Your task to perform on an android device: Open calendar and show me the second week of next month Image 0: 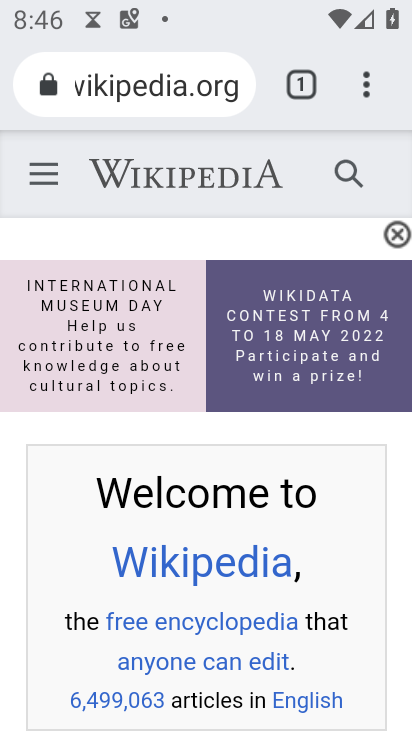
Step 0: press home button
Your task to perform on an android device: Open calendar and show me the second week of next month Image 1: 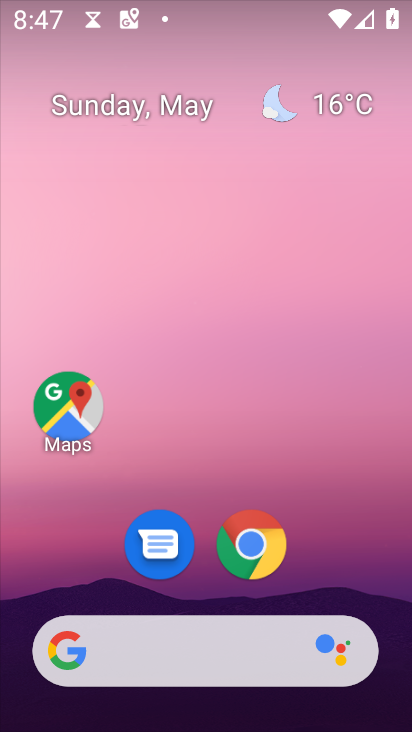
Step 1: drag from (302, 578) to (244, 338)
Your task to perform on an android device: Open calendar and show me the second week of next month Image 2: 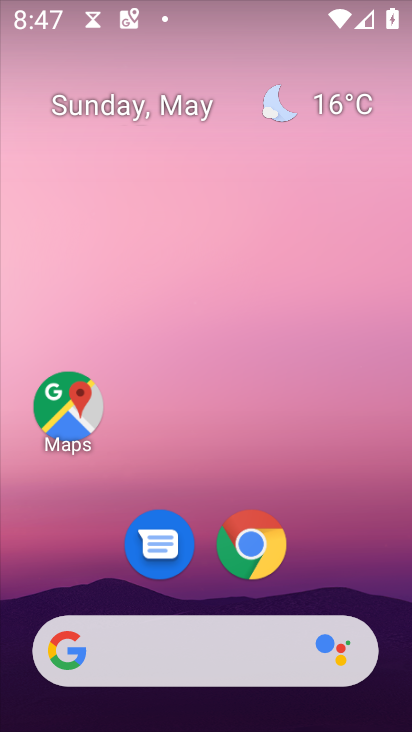
Step 2: drag from (222, 583) to (228, 213)
Your task to perform on an android device: Open calendar and show me the second week of next month Image 3: 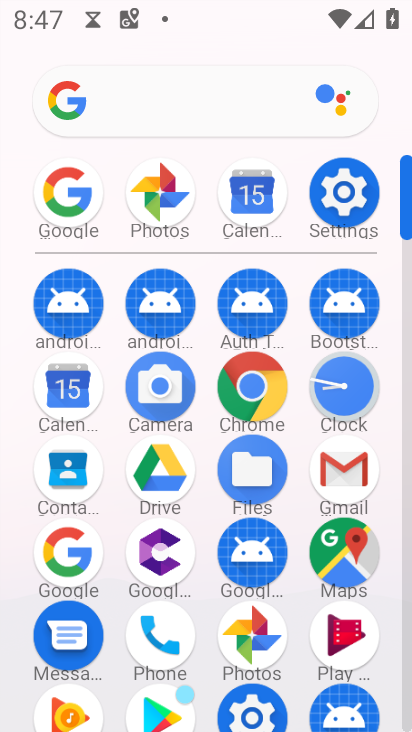
Step 3: click (207, 399)
Your task to perform on an android device: Open calendar and show me the second week of next month Image 4: 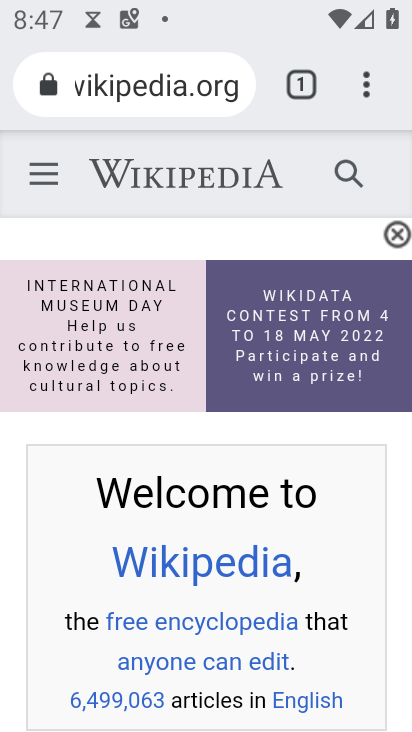
Step 4: press back button
Your task to perform on an android device: Open calendar and show me the second week of next month Image 5: 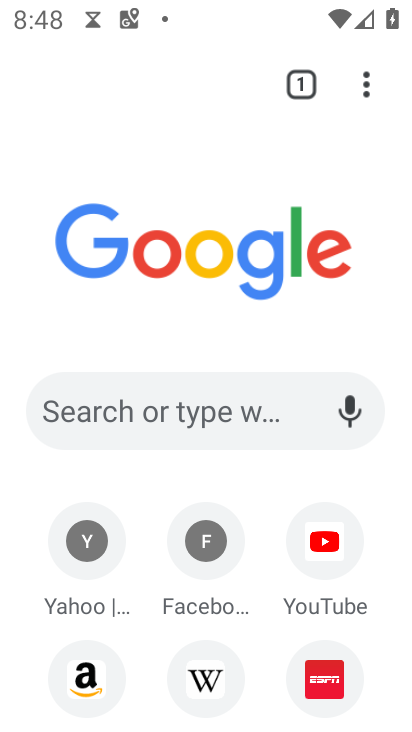
Step 5: press home button
Your task to perform on an android device: Open calendar and show me the second week of next month Image 6: 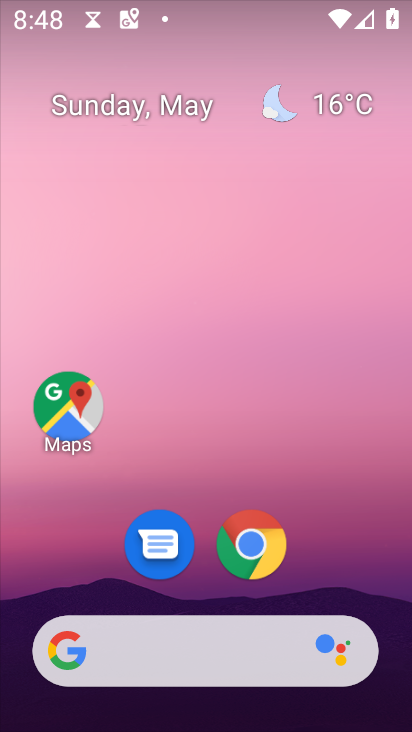
Step 6: drag from (201, 544) to (194, 45)
Your task to perform on an android device: Open calendar and show me the second week of next month Image 7: 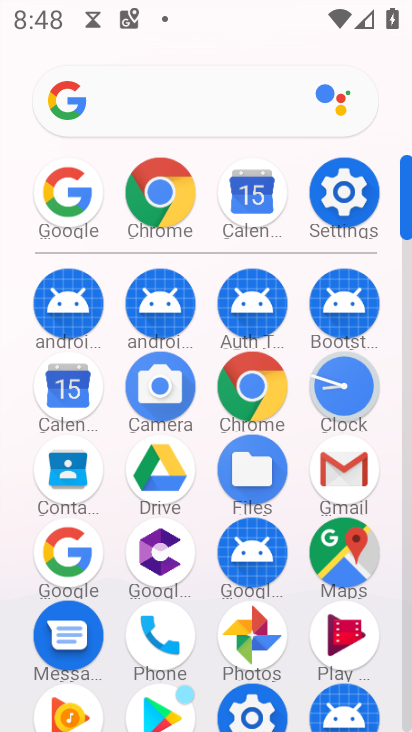
Step 7: click (62, 408)
Your task to perform on an android device: Open calendar and show me the second week of next month Image 8: 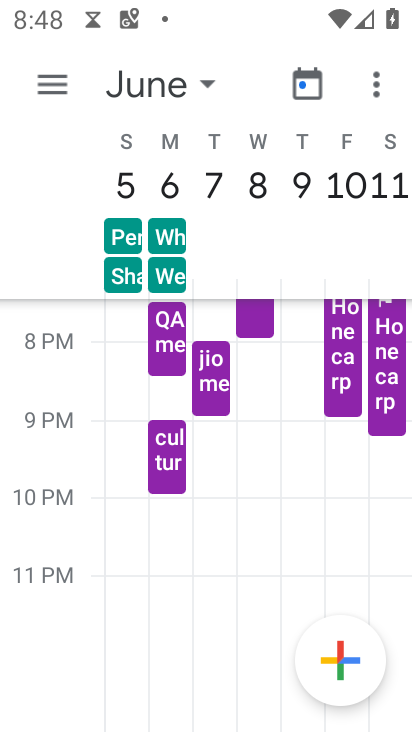
Step 8: click (155, 102)
Your task to perform on an android device: Open calendar and show me the second week of next month Image 9: 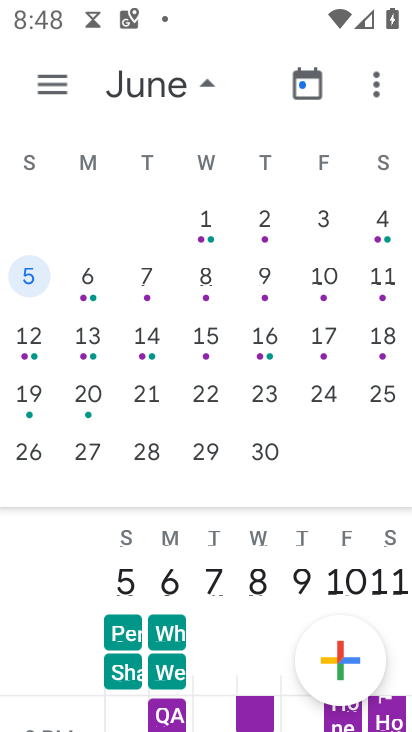
Step 9: task complete